Your task to perform on an android device: change your default location settings in chrome Image 0: 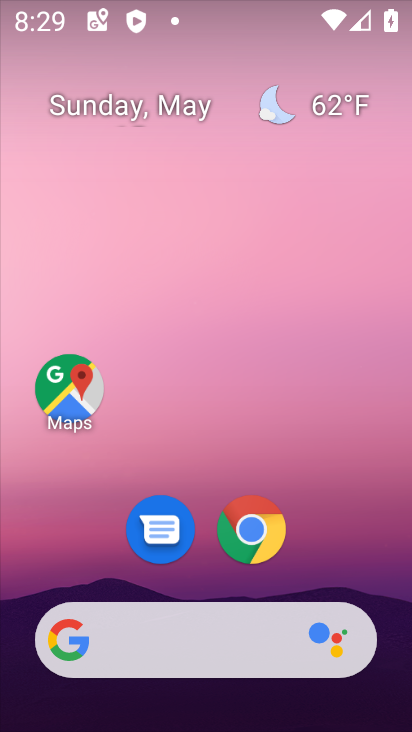
Step 0: drag from (351, 580) to (380, 105)
Your task to perform on an android device: change your default location settings in chrome Image 1: 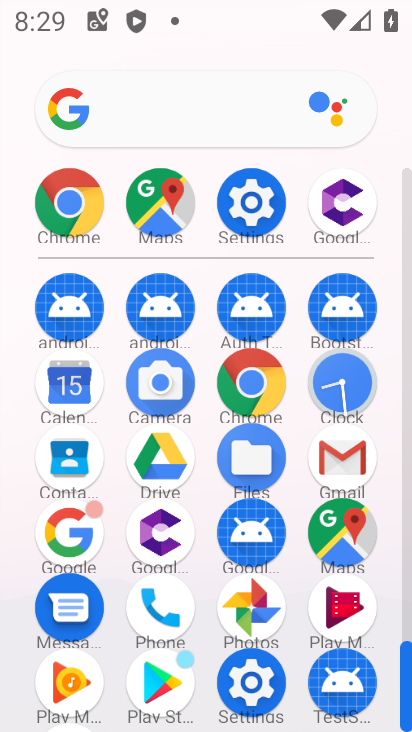
Step 1: click (239, 380)
Your task to perform on an android device: change your default location settings in chrome Image 2: 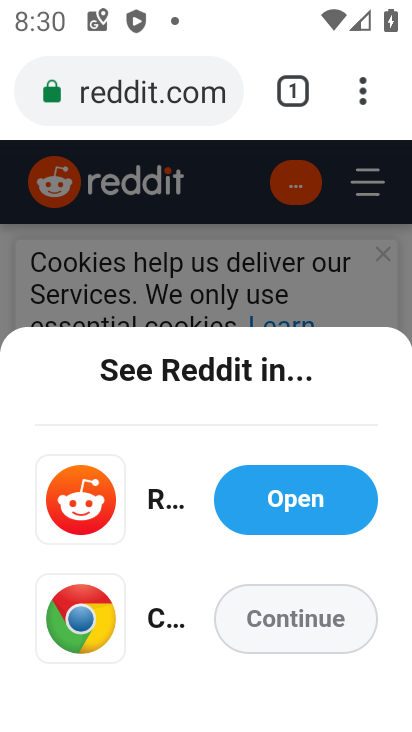
Step 2: drag from (362, 107) to (180, 569)
Your task to perform on an android device: change your default location settings in chrome Image 3: 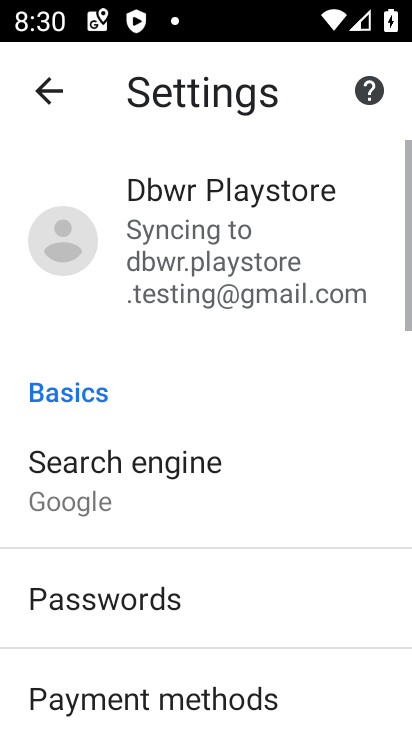
Step 3: drag from (288, 631) to (303, 383)
Your task to perform on an android device: change your default location settings in chrome Image 4: 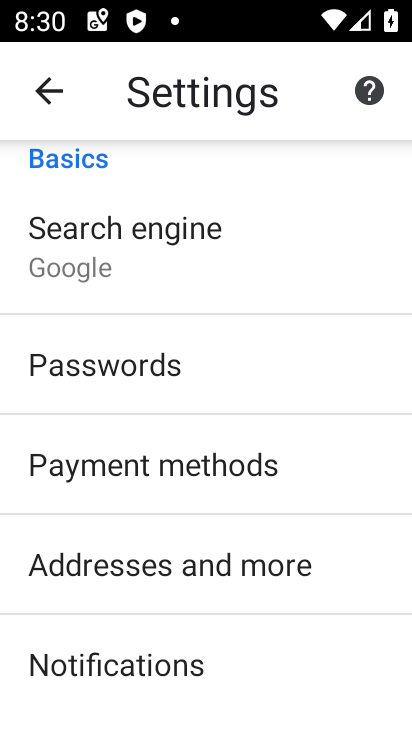
Step 4: drag from (244, 693) to (252, 398)
Your task to perform on an android device: change your default location settings in chrome Image 5: 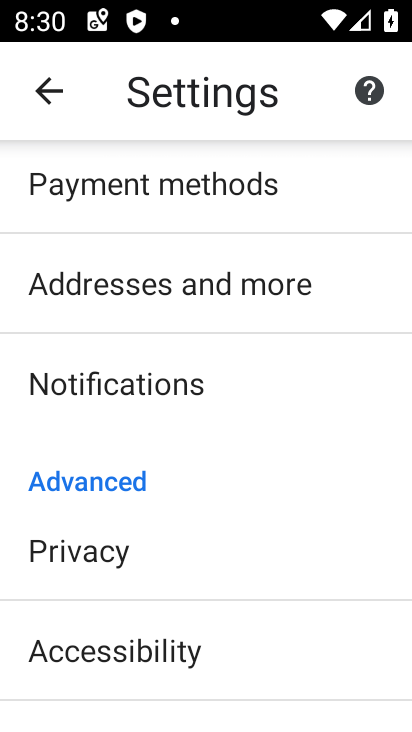
Step 5: drag from (251, 646) to (317, 368)
Your task to perform on an android device: change your default location settings in chrome Image 6: 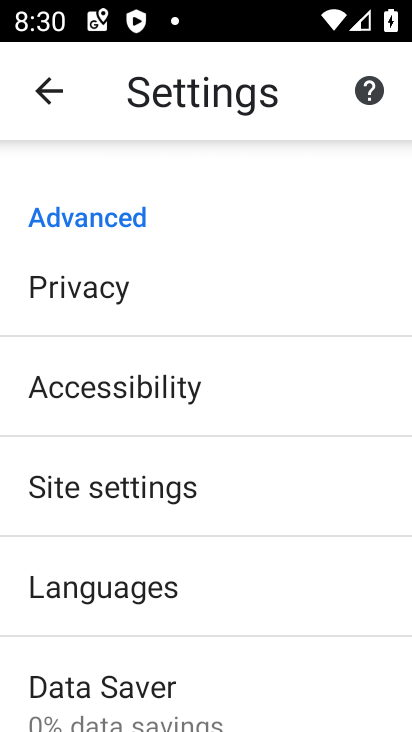
Step 6: drag from (267, 250) to (200, 597)
Your task to perform on an android device: change your default location settings in chrome Image 7: 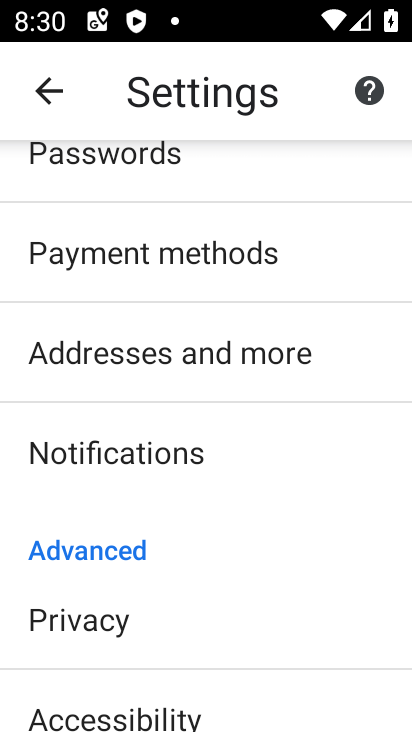
Step 7: drag from (222, 350) to (220, 587)
Your task to perform on an android device: change your default location settings in chrome Image 8: 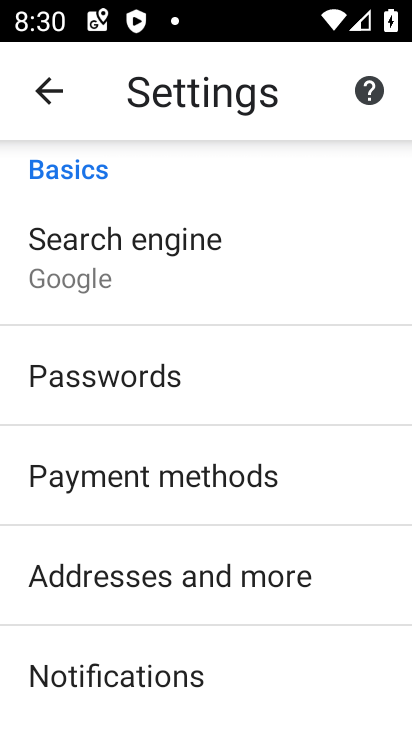
Step 8: drag from (235, 678) to (220, 198)
Your task to perform on an android device: change your default location settings in chrome Image 9: 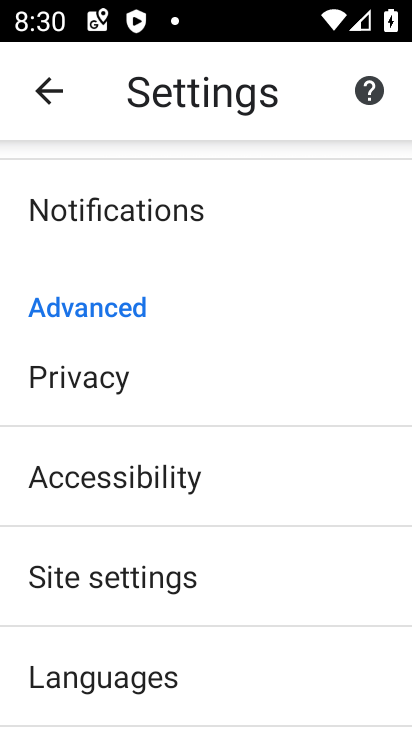
Step 9: click (107, 579)
Your task to perform on an android device: change your default location settings in chrome Image 10: 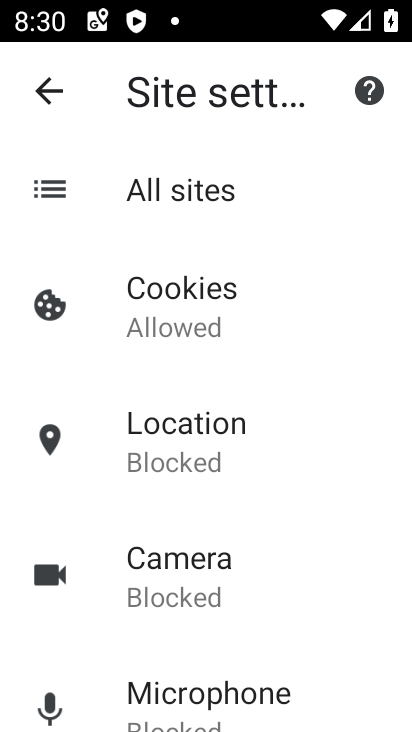
Step 10: click (217, 427)
Your task to perform on an android device: change your default location settings in chrome Image 11: 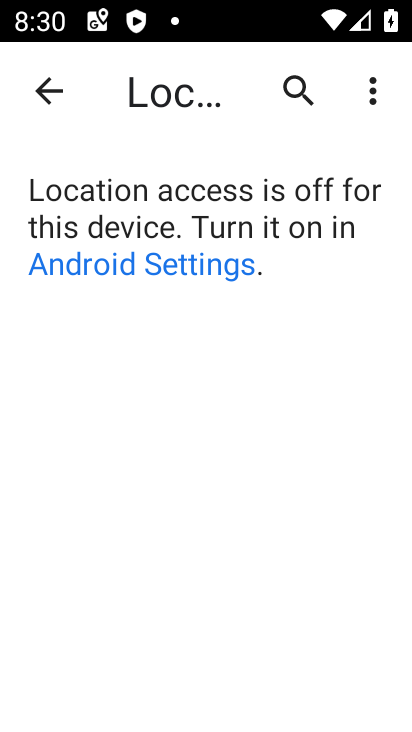
Step 11: task complete